Your task to perform on an android device: Go to location settings Image 0: 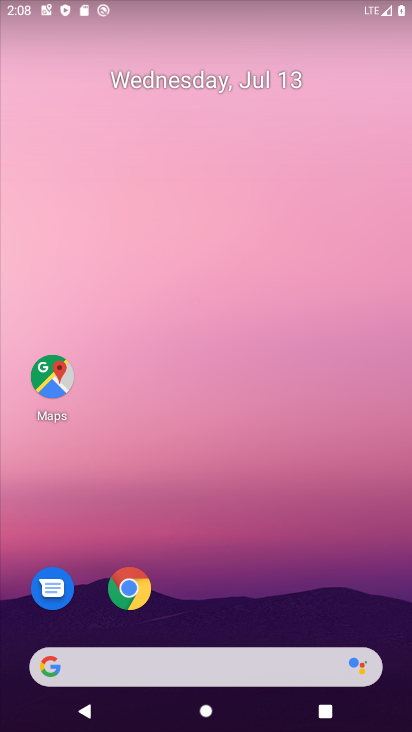
Step 0: drag from (410, 697) to (393, 241)
Your task to perform on an android device: Go to location settings Image 1: 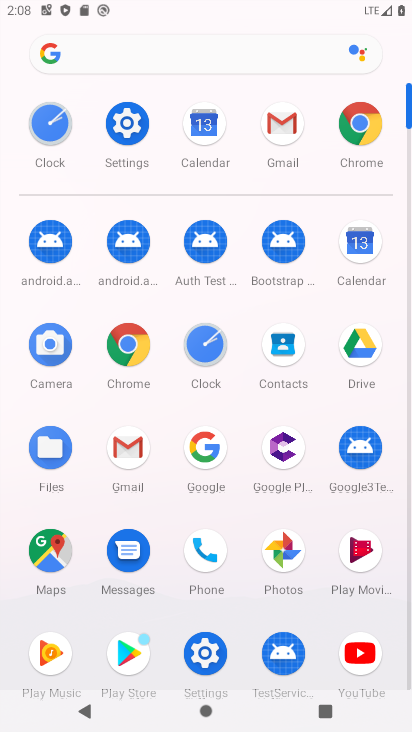
Step 1: click (126, 125)
Your task to perform on an android device: Go to location settings Image 2: 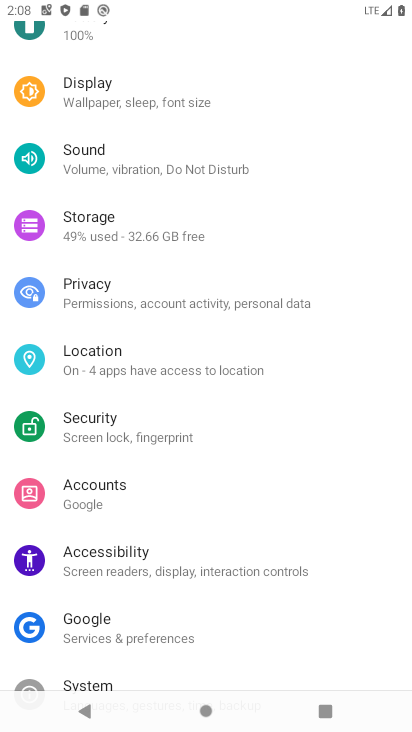
Step 2: drag from (173, 664) to (193, 291)
Your task to perform on an android device: Go to location settings Image 3: 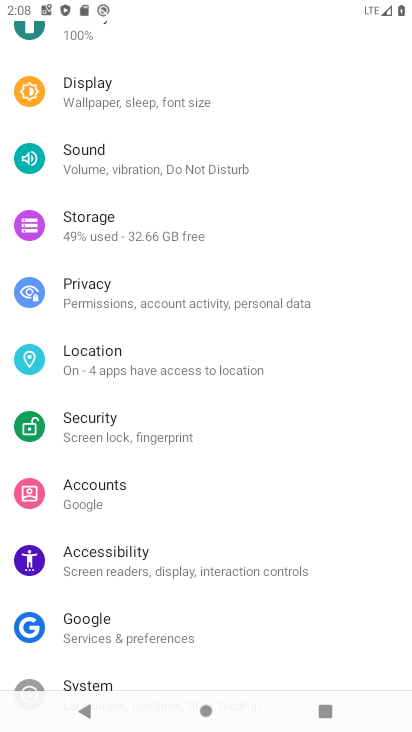
Step 3: click (73, 349)
Your task to perform on an android device: Go to location settings Image 4: 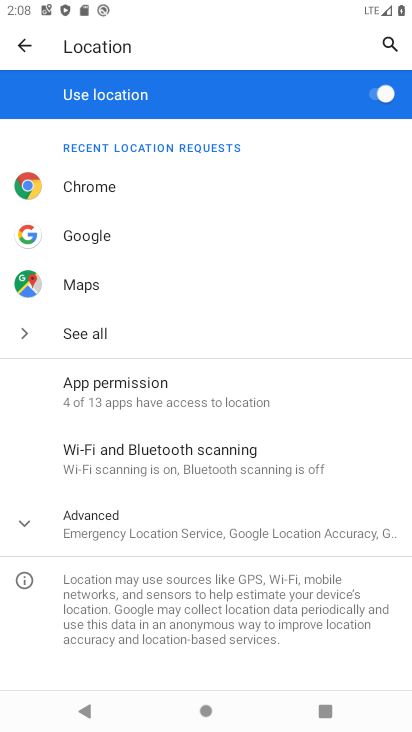
Step 4: click (19, 523)
Your task to perform on an android device: Go to location settings Image 5: 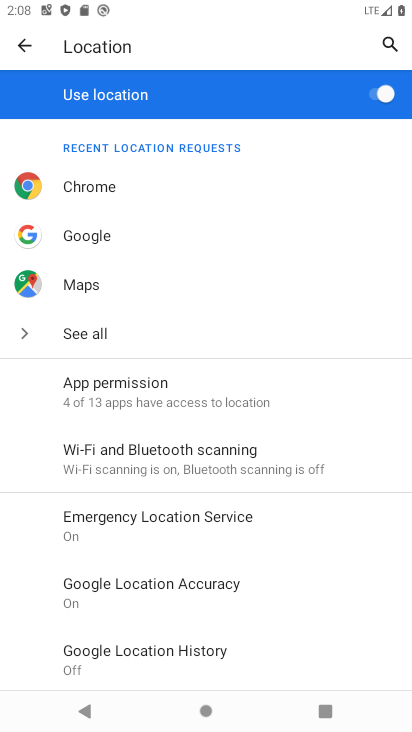
Step 5: task complete